Your task to perform on an android device: turn on priority inbox in the gmail app Image 0: 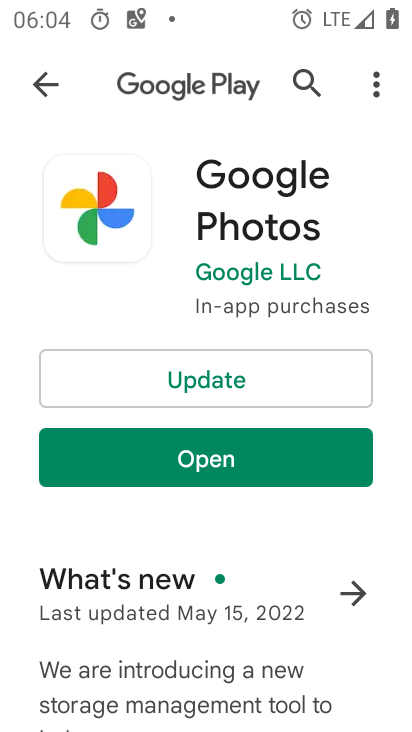
Step 0: press home button
Your task to perform on an android device: turn on priority inbox in the gmail app Image 1: 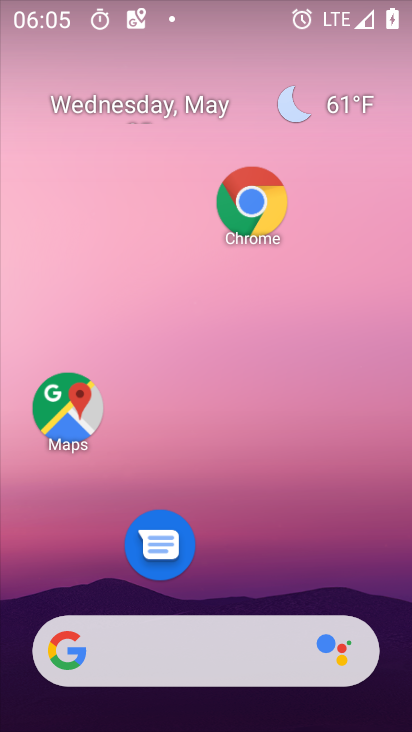
Step 1: drag from (186, 616) to (178, 155)
Your task to perform on an android device: turn on priority inbox in the gmail app Image 2: 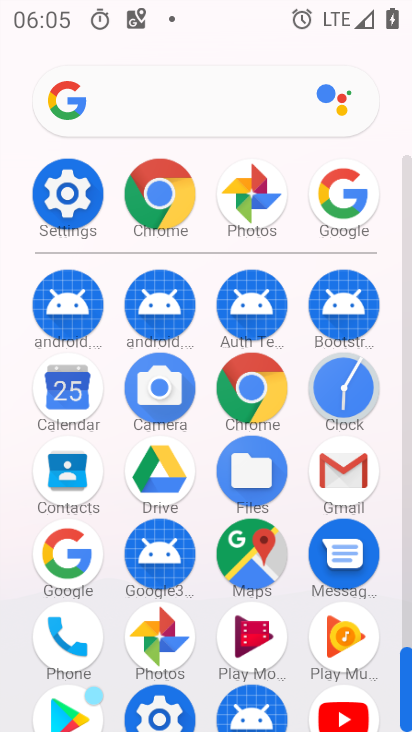
Step 2: click (352, 464)
Your task to perform on an android device: turn on priority inbox in the gmail app Image 3: 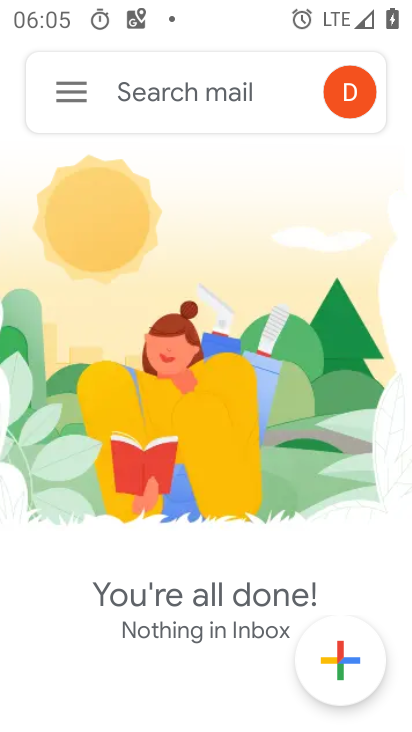
Step 3: click (65, 89)
Your task to perform on an android device: turn on priority inbox in the gmail app Image 4: 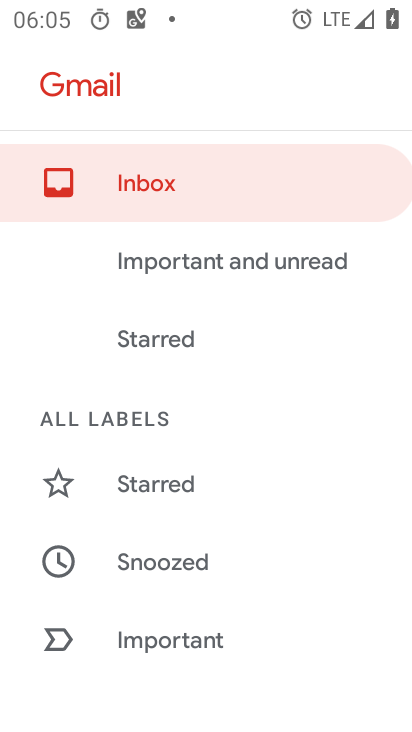
Step 4: drag from (156, 650) to (180, 299)
Your task to perform on an android device: turn on priority inbox in the gmail app Image 5: 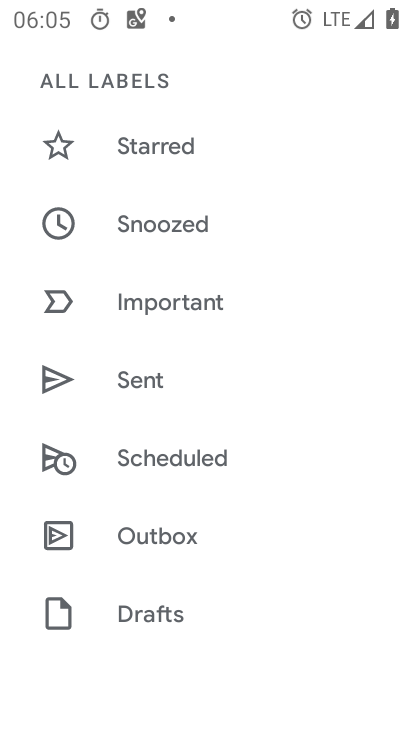
Step 5: drag from (210, 649) to (227, 255)
Your task to perform on an android device: turn on priority inbox in the gmail app Image 6: 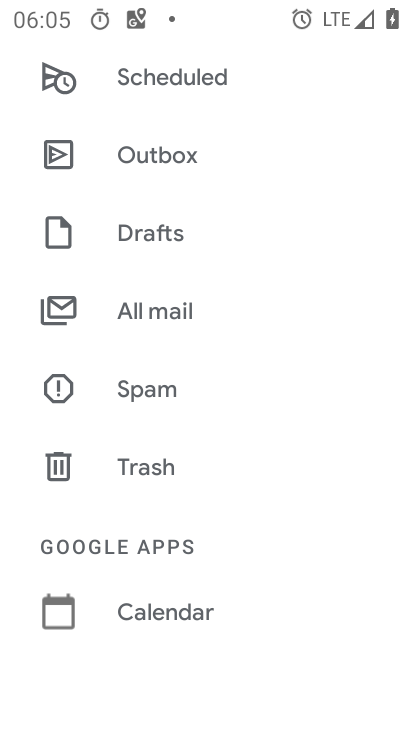
Step 6: drag from (169, 642) to (174, 260)
Your task to perform on an android device: turn on priority inbox in the gmail app Image 7: 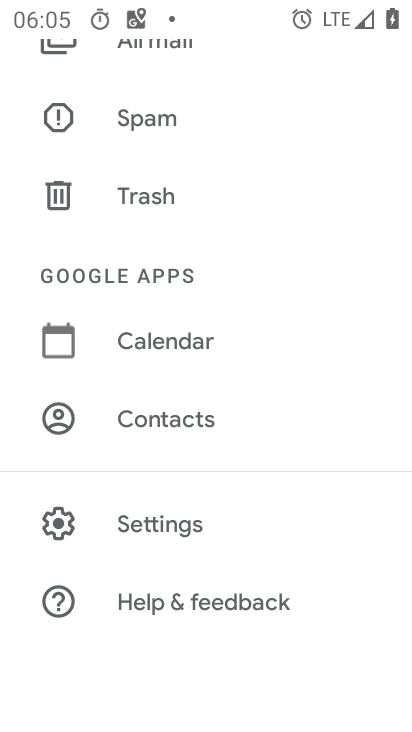
Step 7: click (171, 525)
Your task to perform on an android device: turn on priority inbox in the gmail app Image 8: 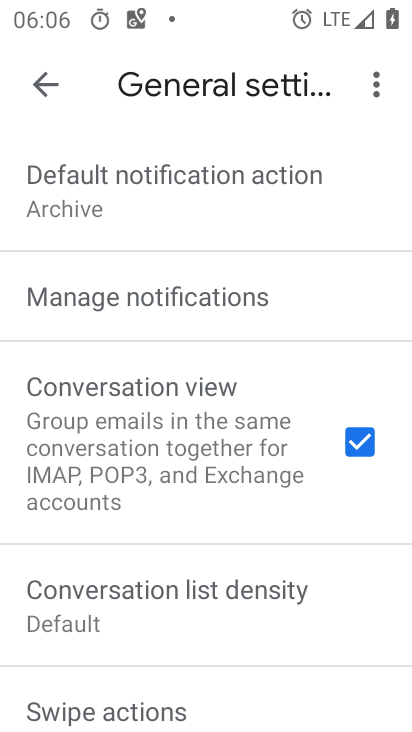
Step 8: drag from (149, 718) to (164, 247)
Your task to perform on an android device: turn on priority inbox in the gmail app Image 9: 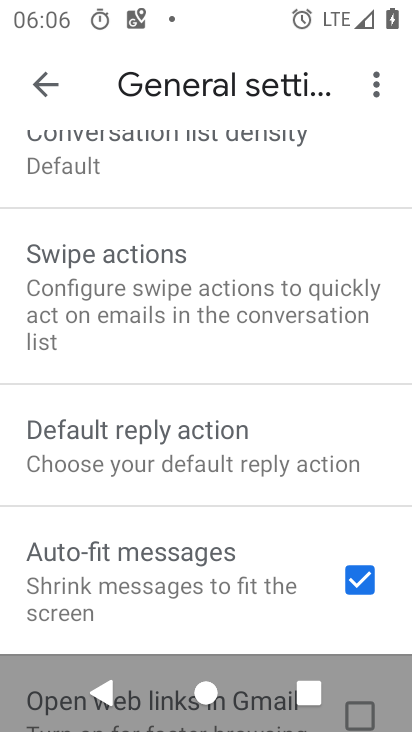
Step 9: drag from (189, 605) to (206, 228)
Your task to perform on an android device: turn on priority inbox in the gmail app Image 10: 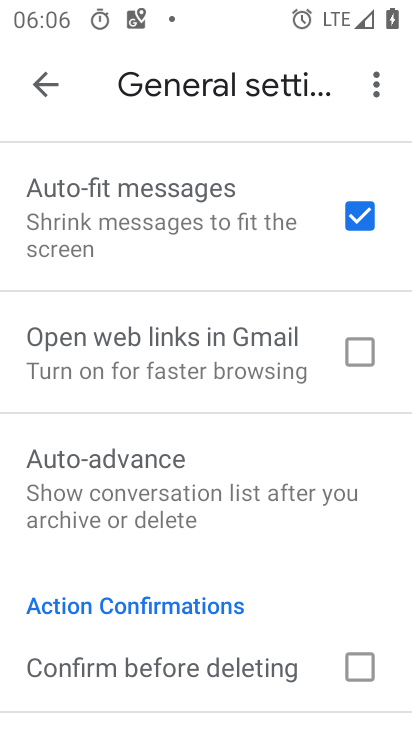
Step 10: drag from (144, 625) to (174, 252)
Your task to perform on an android device: turn on priority inbox in the gmail app Image 11: 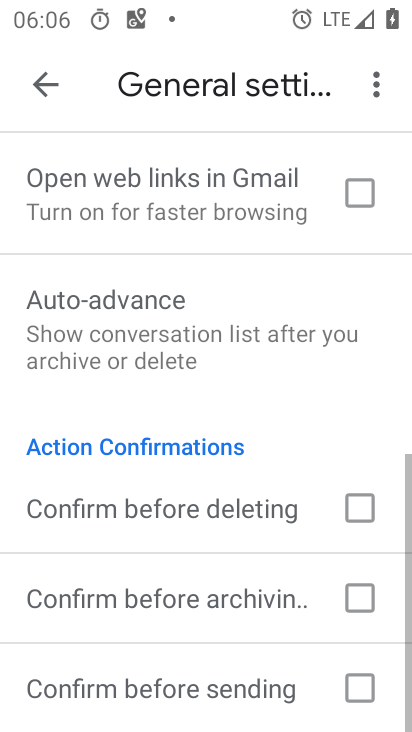
Step 11: drag from (188, 638) to (190, 256)
Your task to perform on an android device: turn on priority inbox in the gmail app Image 12: 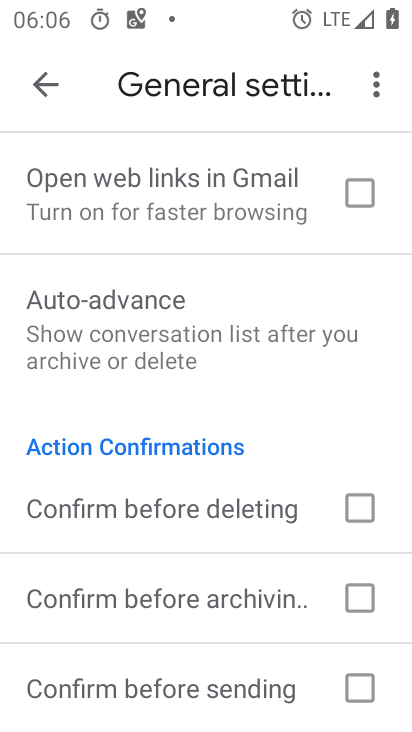
Step 12: click (52, 74)
Your task to perform on an android device: turn on priority inbox in the gmail app Image 13: 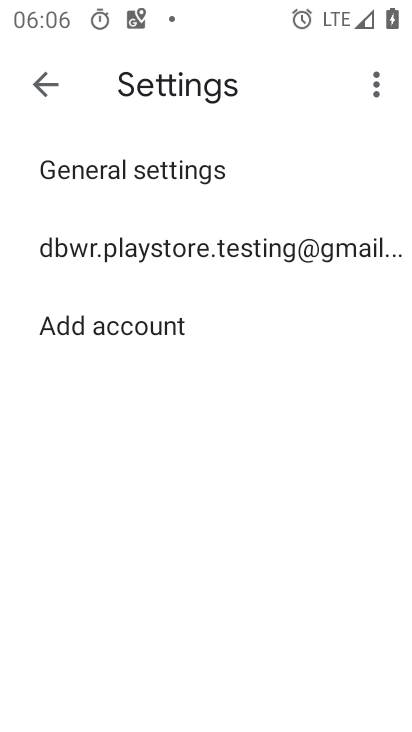
Step 13: click (133, 257)
Your task to perform on an android device: turn on priority inbox in the gmail app Image 14: 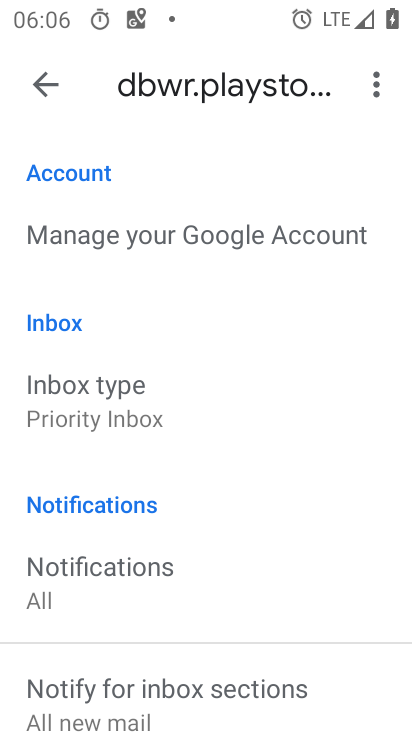
Step 14: task complete